Your task to perform on an android device: toggle show notifications on the lock screen Image 0: 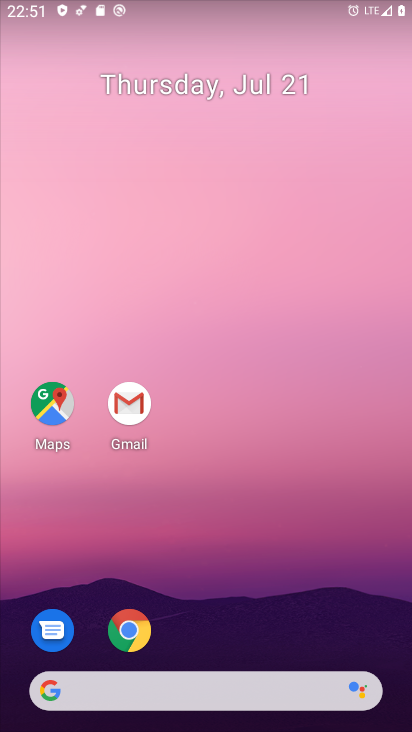
Step 0: drag from (187, 530) to (168, 181)
Your task to perform on an android device: toggle show notifications on the lock screen Image 1: 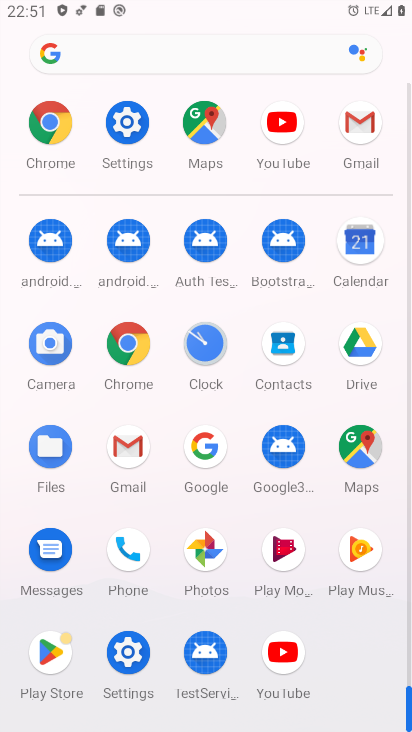
Step 1: drag from (171, 619) to (162, 257)
Your task to perform on an android device: toggle show notifications on the lock screen Image 2: 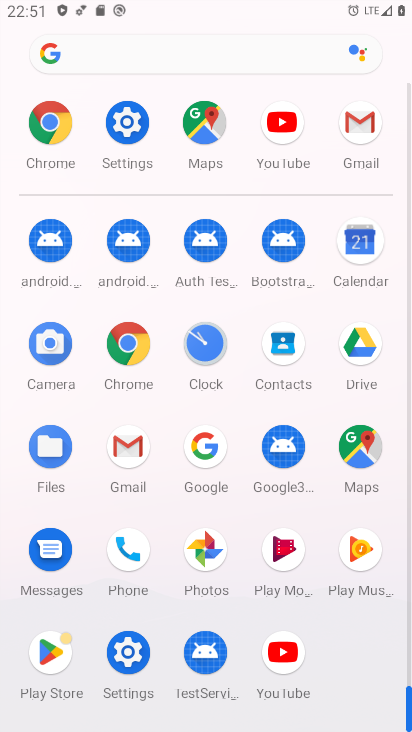
Step 2: click (128, 121)
Your task to perform on an android device: toggle show notifications on the lock screen Image 3: 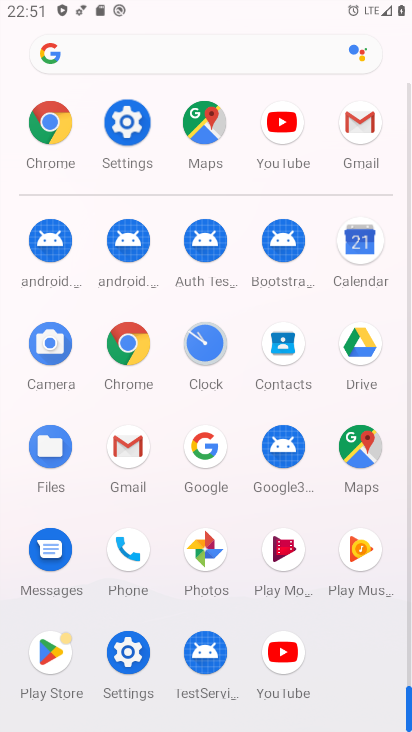
Step 3: click (126, 112)
Your task to perform on an android device: toggle show notifications on the lock screen Image 4: 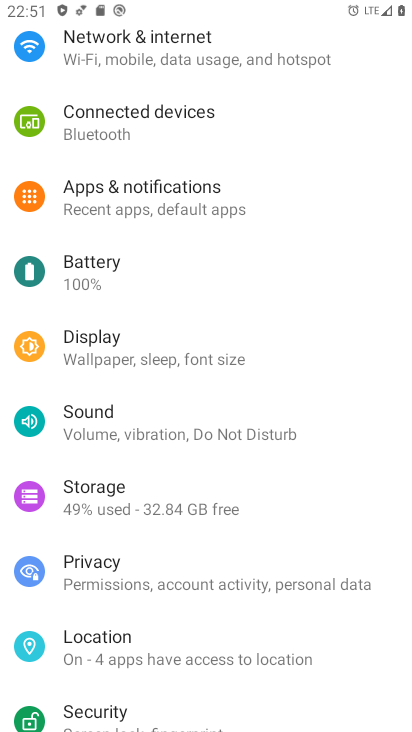
Step 4: click (165, 203)
Your task to perform on an android device: toggle show notifications on the lock screen Image 5: 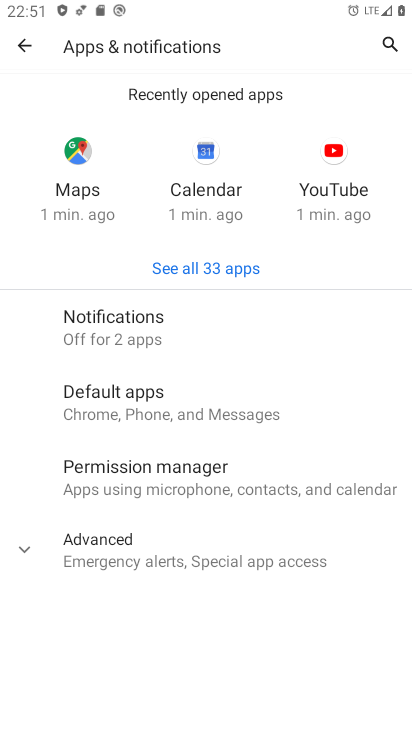
Step 5: click (109, 329)
Your task to perform on an android device: toggle show notifications on the lock screen Image 6: 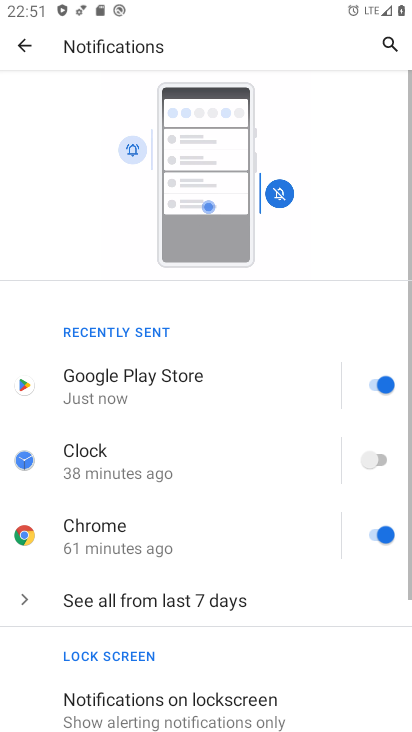
Step 6: drag from (192, 604) to (189, 302)
Your task to perform on an android device: toggle show notifications on the lock screen Image 7: 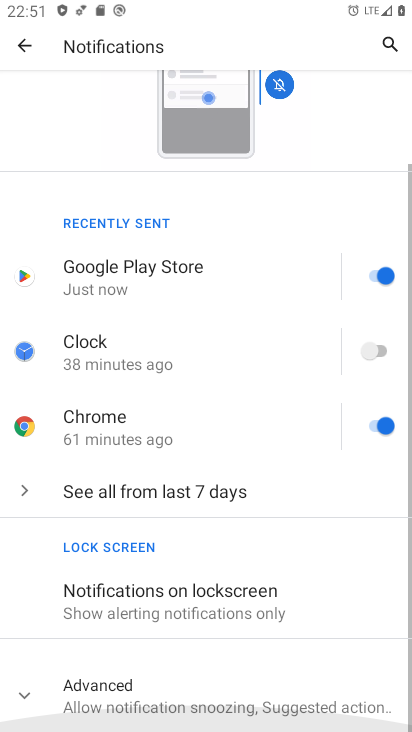
Step 7: drag from (243, 599) to (210, 260)
Your task to perform on an android device: toggle show notifications on the lock screen Image 8: 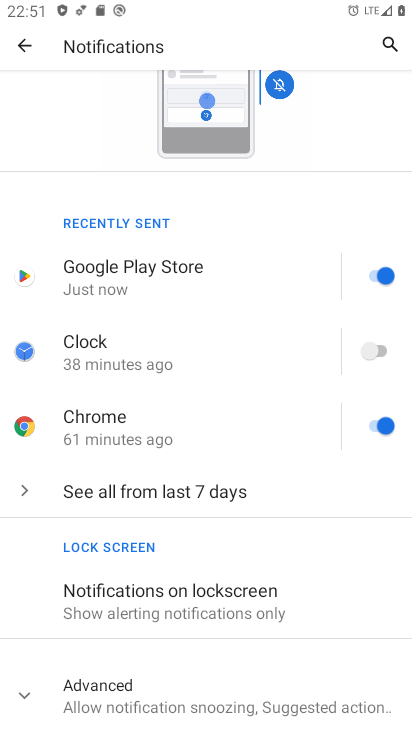
Step 8: click (194, 593)
Your task to perform on an android device: toggle show notifications on the lock screen Image 9: 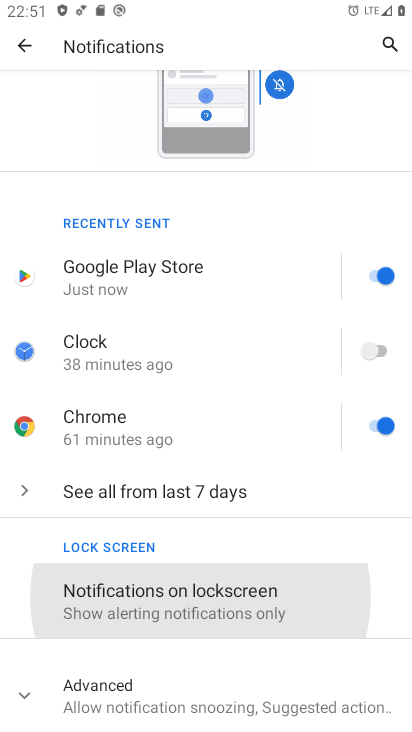
Step 9: click (193, 594)
Your task to perform on an android device: toggle show notifications on the lock screen Image 10: 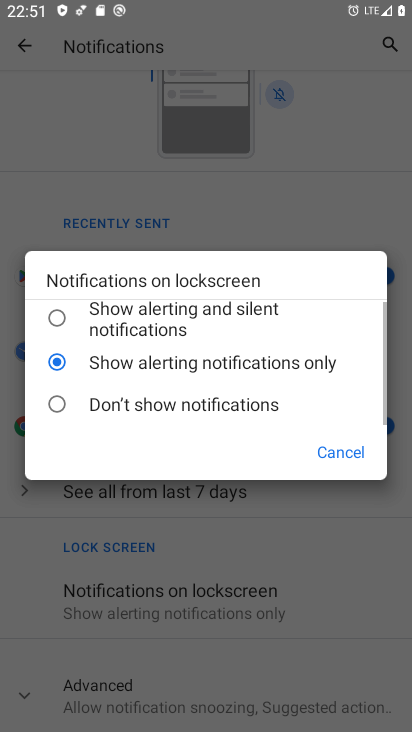
Step 10: click (51, 312)
Your task to perform on an android device: toggle show notifications on the lock screen Image 11: 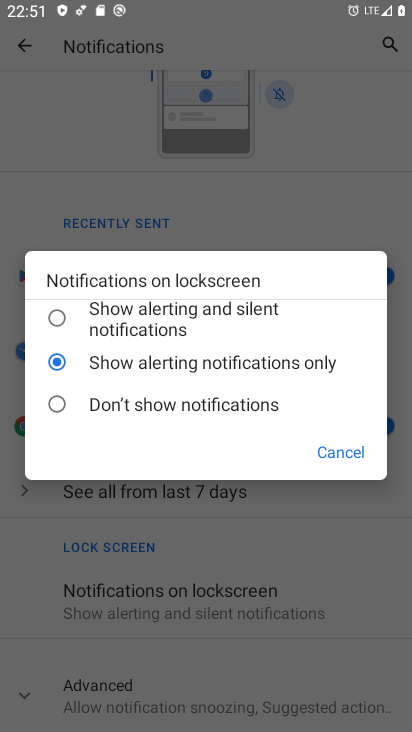
Step 11: click (55, 313)
Your task to perform on an android device: toggle show notifications on the lock screen Image 12: 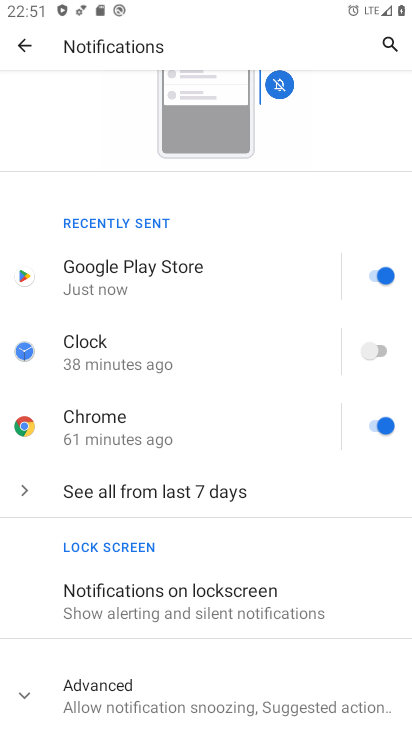
Step 12: click (160, 608)
Your task to perform on an android device: toggle show notifications on the lock screen Image 13: 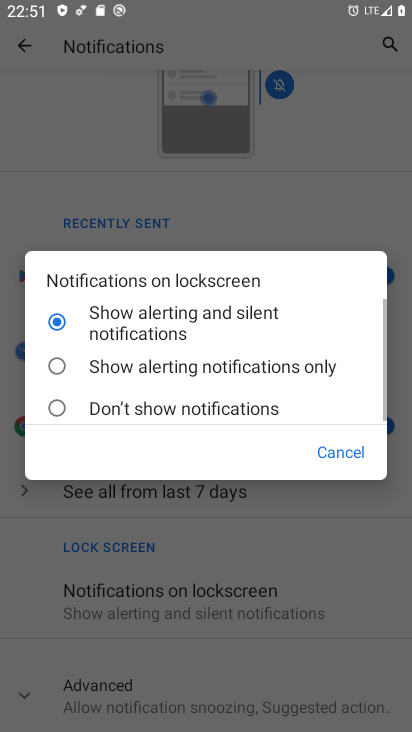
Step 13: click (346, 455)
Your task to perform on an android device: toggle show notifications on the lock screen Image 14: 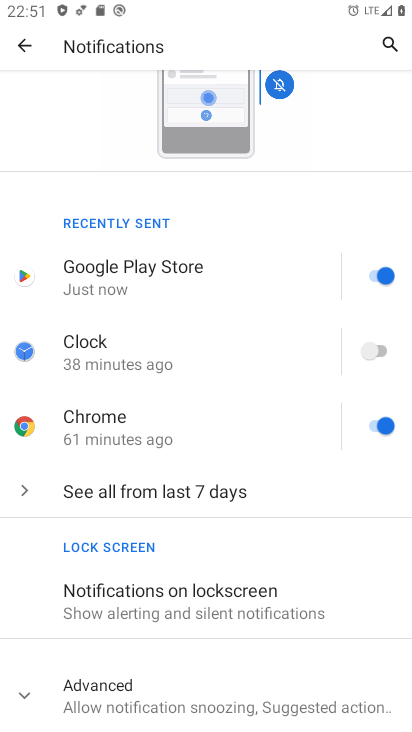
Step 14: task complete